Your task to perform on an android device: change the clock display to show seconds Image 0: 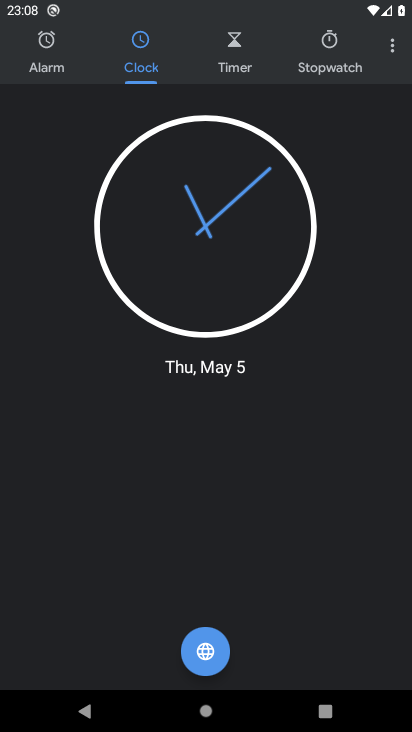
Step 0: click (391, 45)
Your task to perform on an android device: change the clock display to show seconds Image 1: 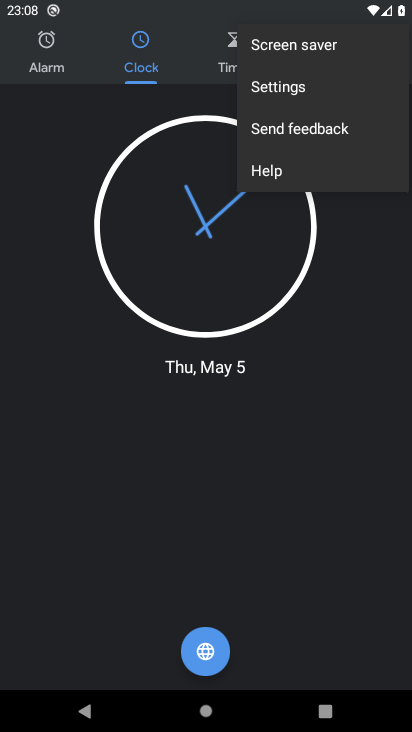
Step 1: click (358, 92)
Your task to perform on an android device: change the clock display to show seconds Image 2: 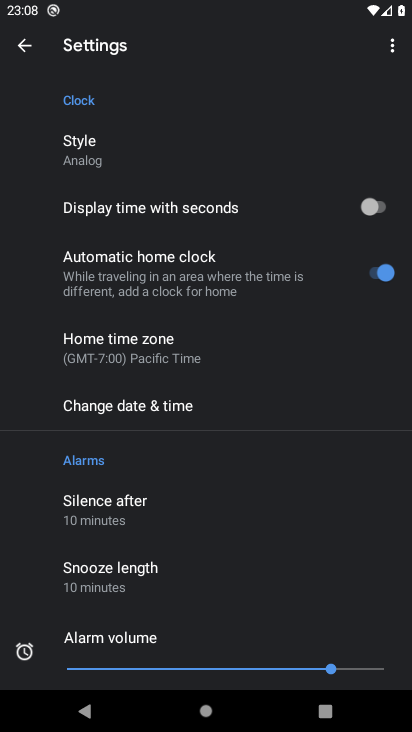
Step 2: click (378, 218)
Your task to perform on an android device: change the clock display to show seconds Image 3: 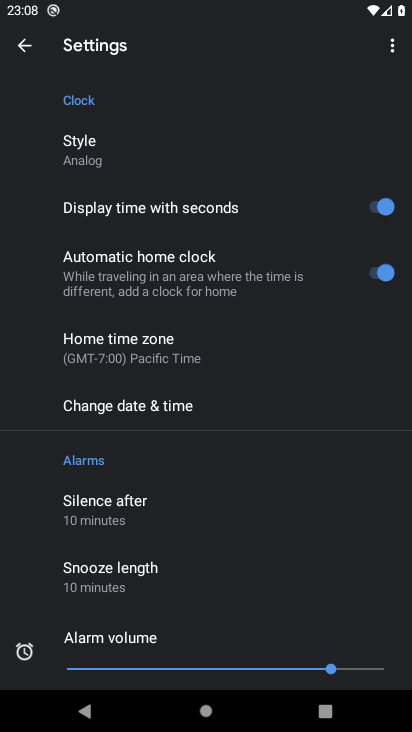
Step 3: task complete